Your task to perform on an android device: Go to Maps Image 0: 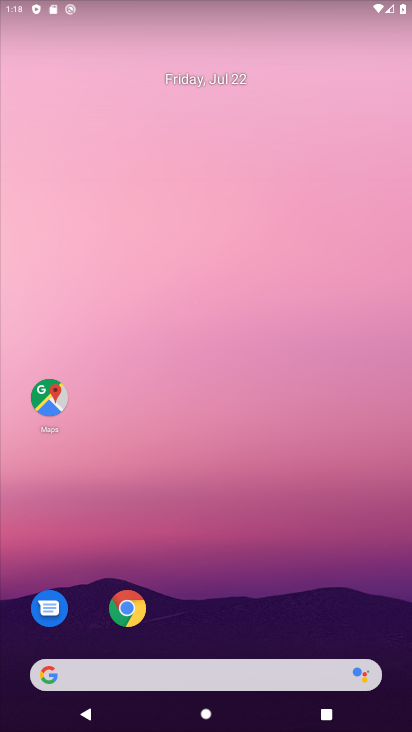
Step 0: click (41, 408)
Your task to perform on an android device: Go to Maps Image 1: 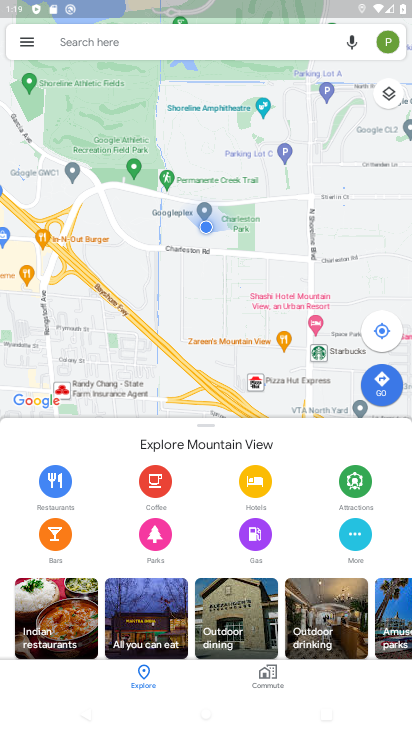
Step 1: task complete